Your task to perform on an android device: move a message to another label in the gmail app Image 0: 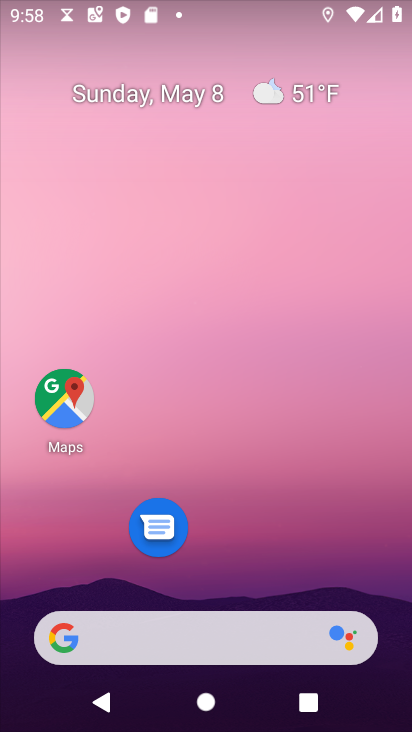
Step 0: drag from (242, 570) to (210, 73)
Your task to perform on an android device: move a message to another label in the gmail app Image 1: 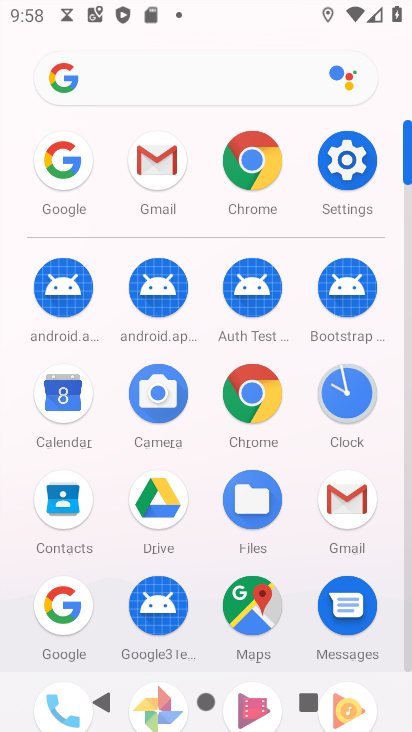
Step 1: click (157, 164)
Your task to perform on an android device: move a message to another label in the gmail app Image 2: 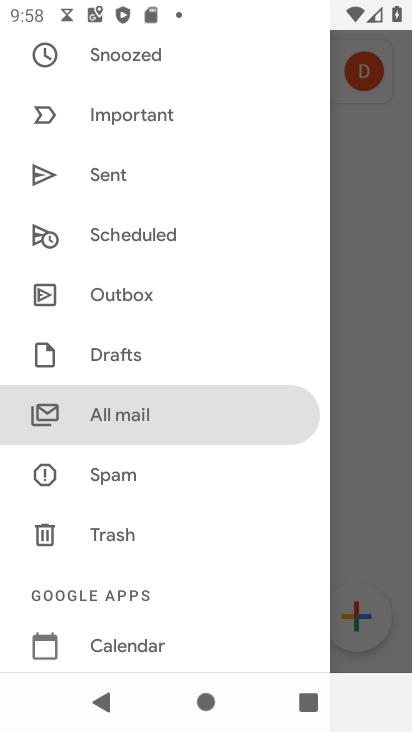
Step 2: click (197, 408)
Your task to perform on an android device: move a message to another label in the gmail app Image 3: 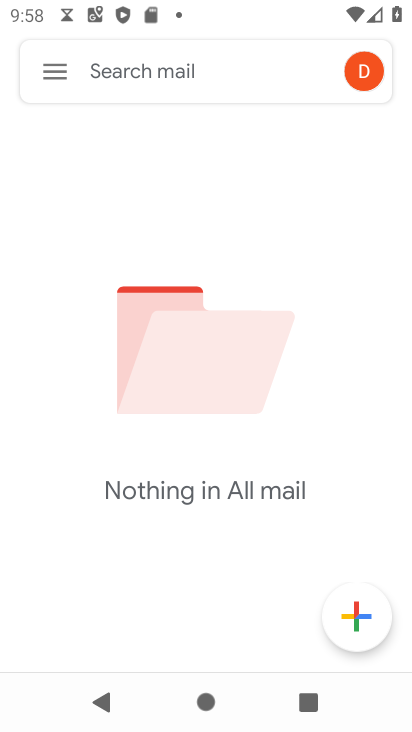
Step 3: click (55, 68)
Your task to perform on an android device: move a message to another label in the gmail app Image 4: 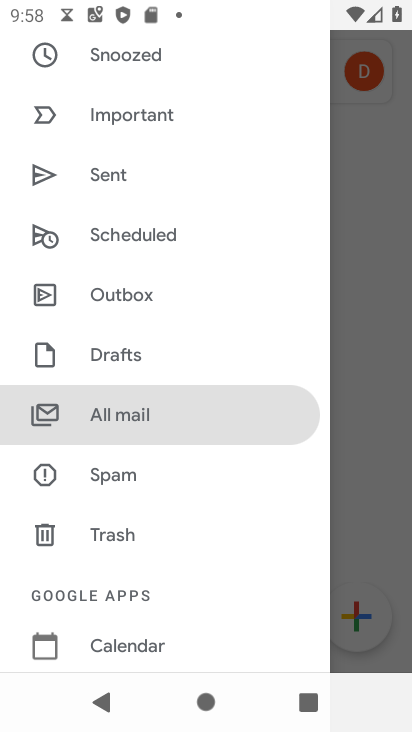
Step 4: drag from (210, 260) to (184, 399)
Your task to perform on an android device: move a message to another label in the gmail app Image 5: 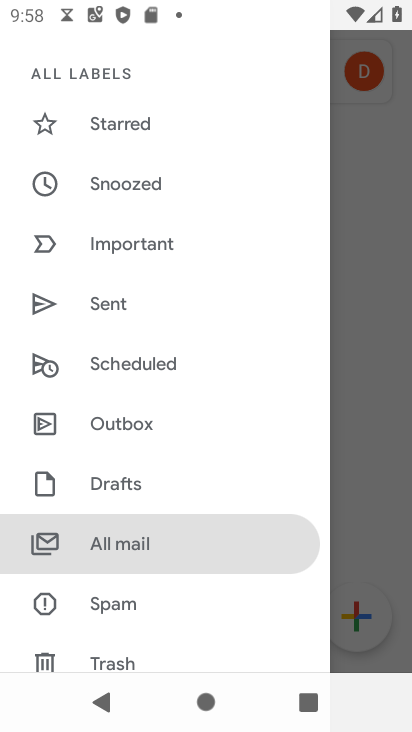
Step 5: drag from (125, 316) to (144, 468)
Your task to perform on an android device: move a message to another label in the gmail app Image 6: 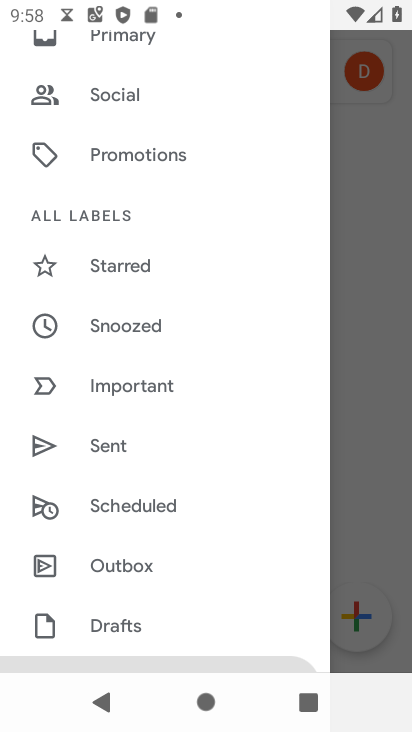
Step 6: drag from (176, 112) to (255, 279)
Your task to perform on an android device: move a message to another label in the gmail app Image 7: 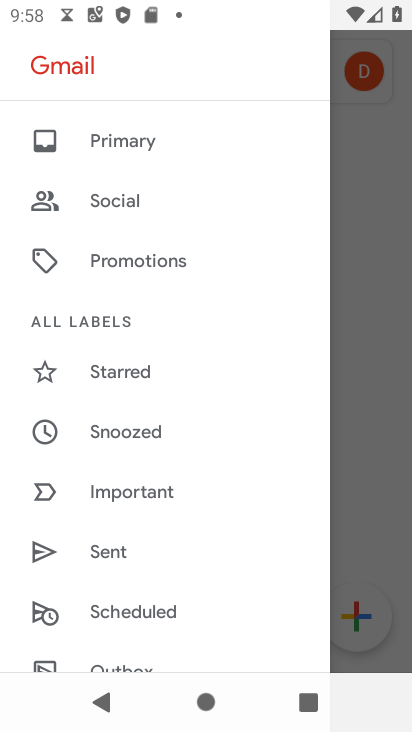
Step 7: click (113, 138)
Your task to perform on an android device: move a message to another label in the gmail app Image 8: 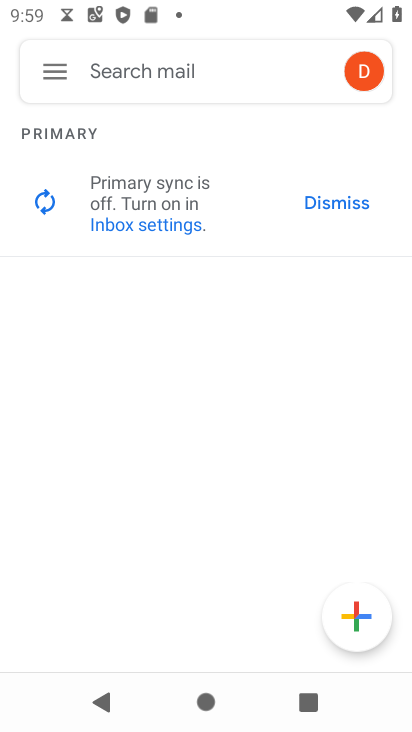
Step 8: task complete